Your task to perform on an android device: toggle sleep mode Image 0: 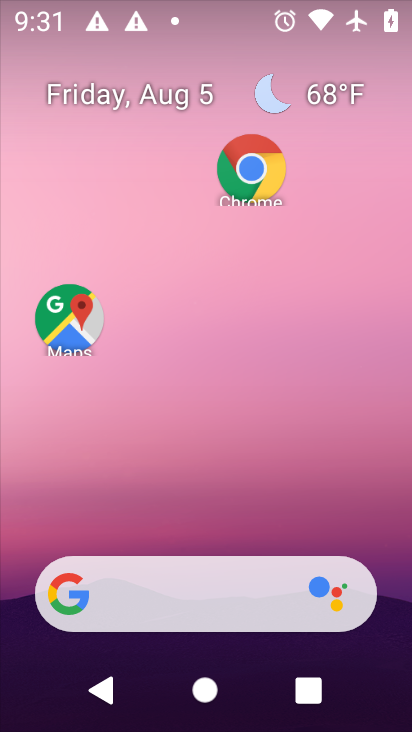
Step 0: drag from (208, 509) to (209, 183)
Your task to perform on an android device: toggle sleep mode Image 1: 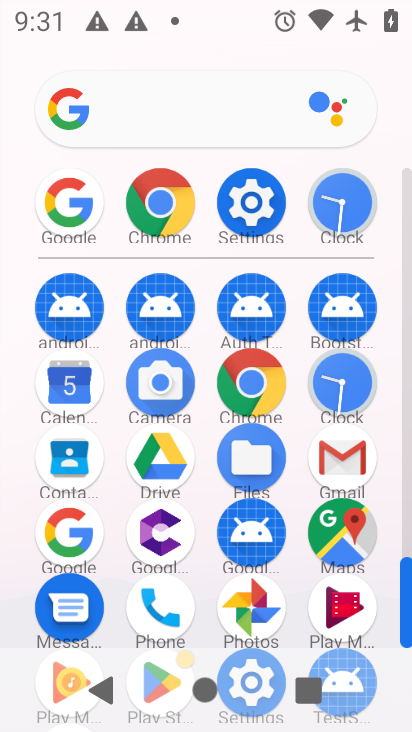
Step 1: click (248, 207)
Your task to perform on an android device: toggle sleep mode Image 2: 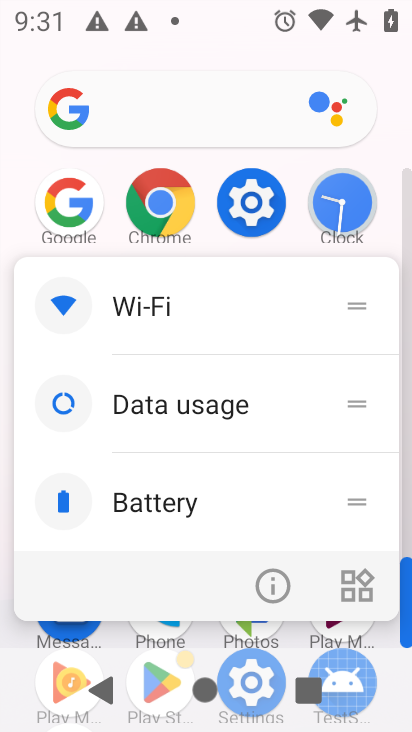
Step 2: click (248, 207)
Your task to perform on an android device: toggle sleep mode Image 3: 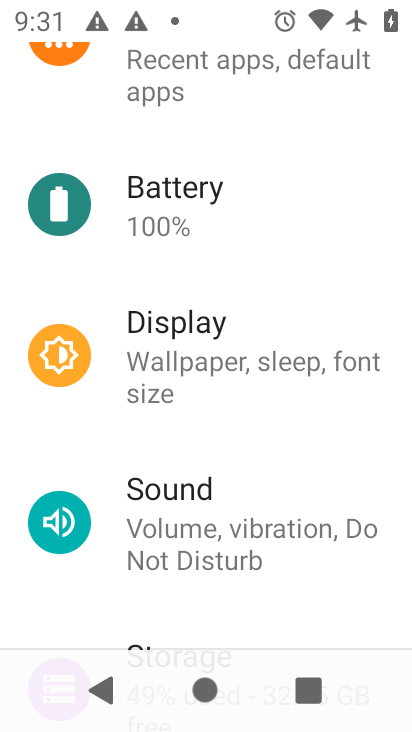
Step 3: click (186, 329)
Your task to perform on an android device: toggle sleep mode Image 4: 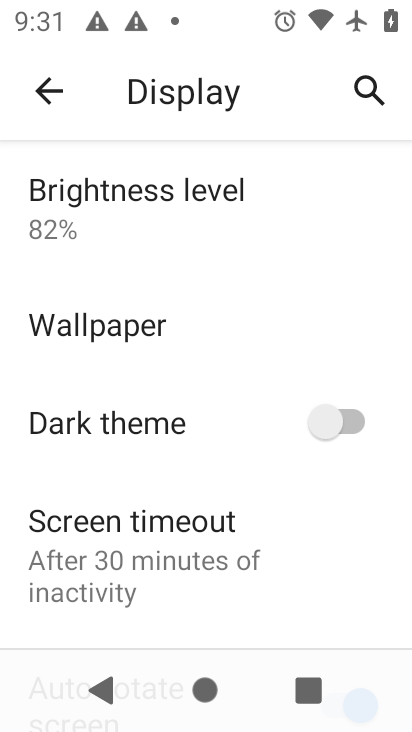
Step 4: click (177, 541)
Your task to perform on an android device: toggle sleep mode Image 5: 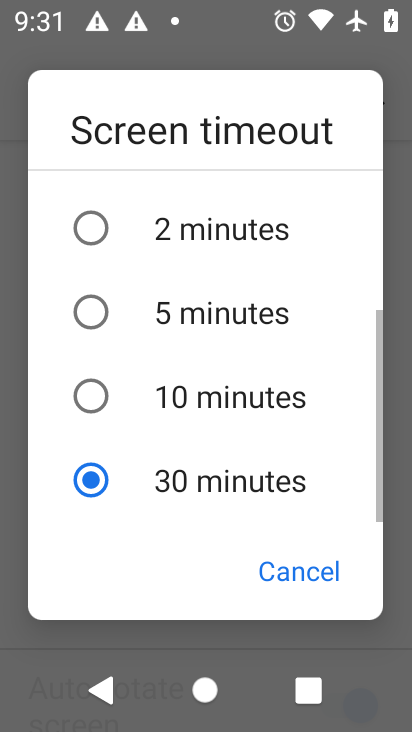
Step 5: click (194, 237)
Your task to perform on an android device: toggle sleep mode Image 6: 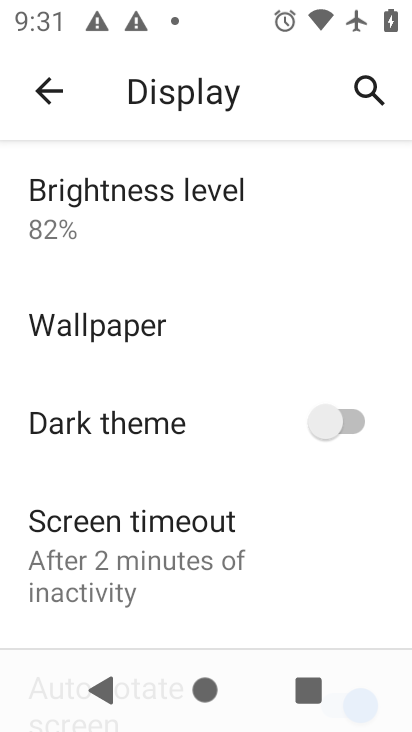
Step 6: task complete